Your task to perform on an android device: turn on improve location accuracy Image 0: 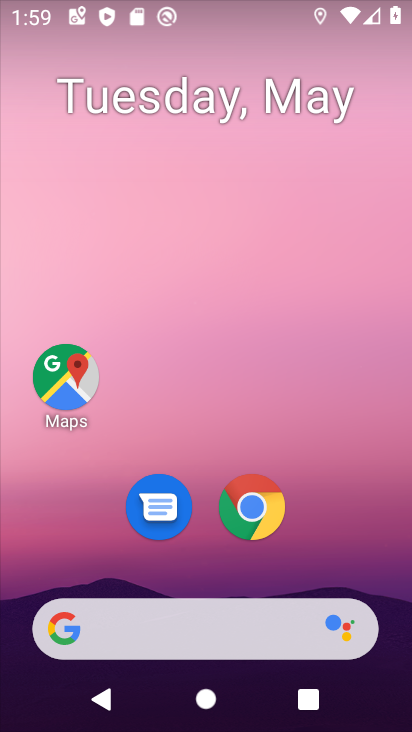
Step 0: drag from (317, 564) to (320, 54)
Your task to perform on an android device: turn on improve location accuracy Image 1: 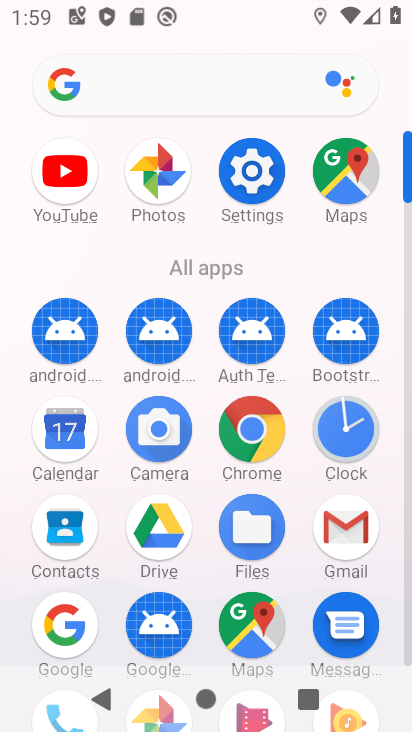
Step 1: click (254, 177)
Your task to perform on an android device: turn on improve location accuracy Image 2: 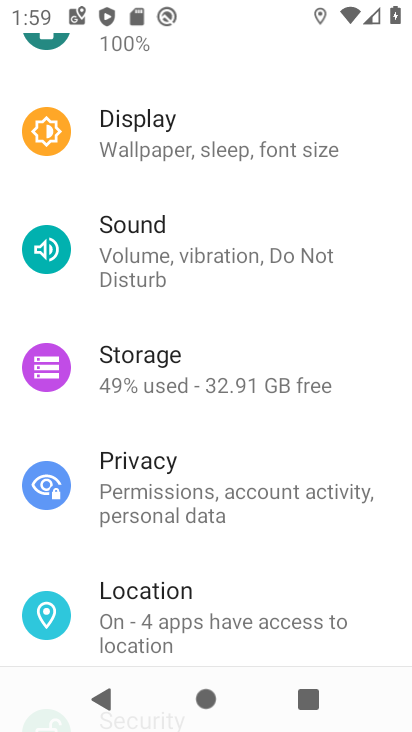
Step 2: click (244, 611)
Your task to perform on an android device: turn on improve location accuracy Image 3: 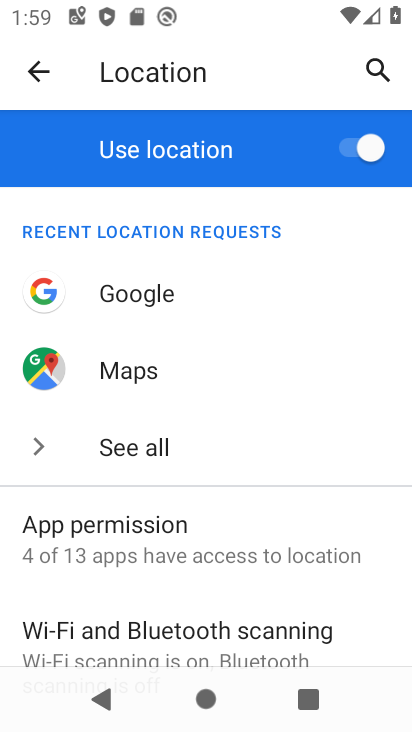
Step 3: drag from (230, 590) to (222, 322)
Your task to perform on an android device: turn on improve location accuracy Image 4: 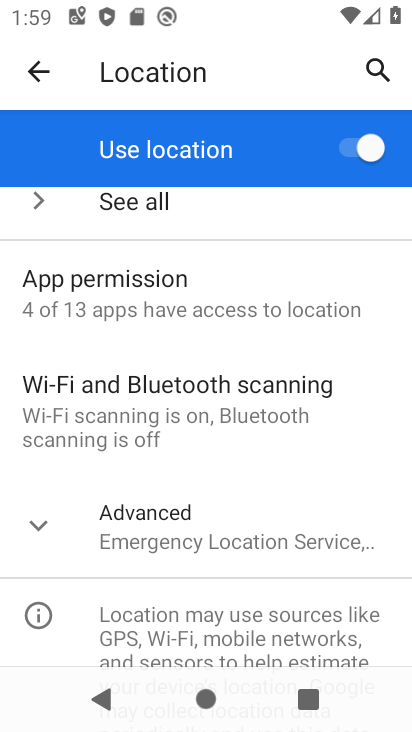
Step 4: click (176, 545)
Your task to perform on an android device: turn on improve location accuracy Image 5: 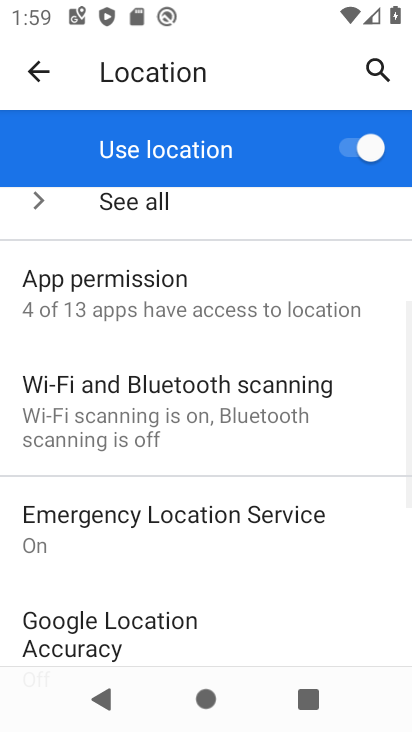
Step 5: drag from (170, 622) to (210, 381)
Your task to perform on an android device: turn on improve location accuracy Image 6: 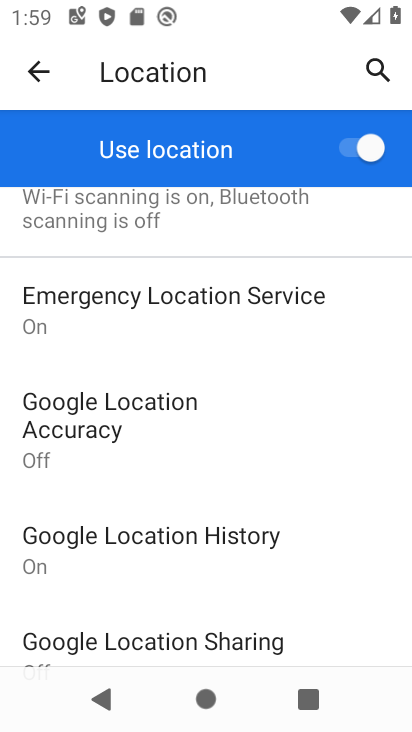
Step 6: click (110, 428)
Your task to perform on an android device: turn on improve location accuracy Image 7: 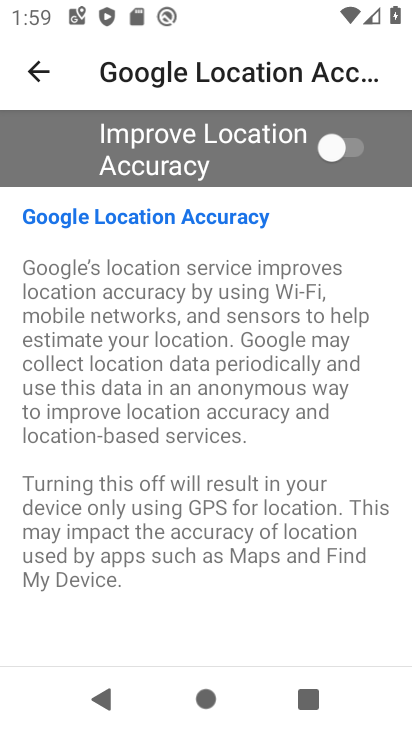
Step 7: click (346, 150)
Your task to perform on an android device: turn on improve location accuracy Image 8: 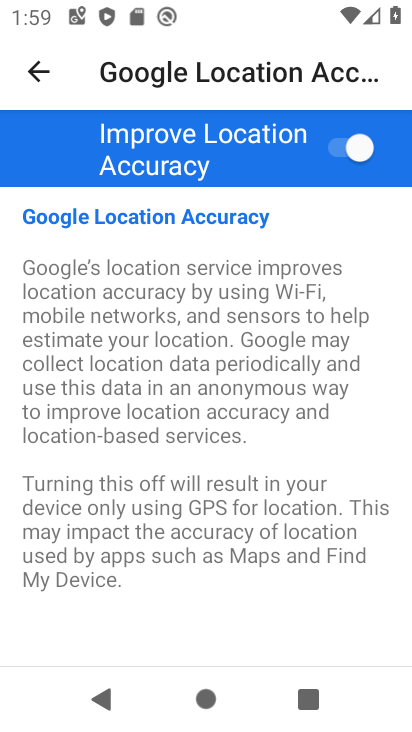
Step 8: task complete